Your task to perform on an android device: allow notifications from all sites in the chrome app Image 0: 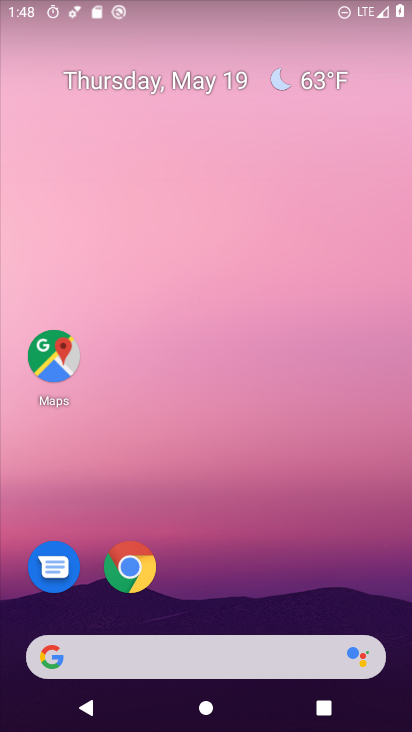
Step 0: press home button
Your task to perform on an android device: allow notifications from all sites in the chrome app Image 1: 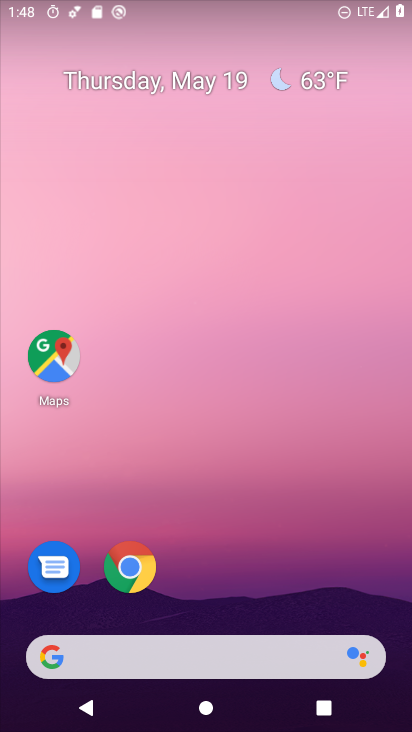
Step 1: click (125, 578)
Your task to perform on an android device: allow notifications from all sites in the chrome app Image 2: 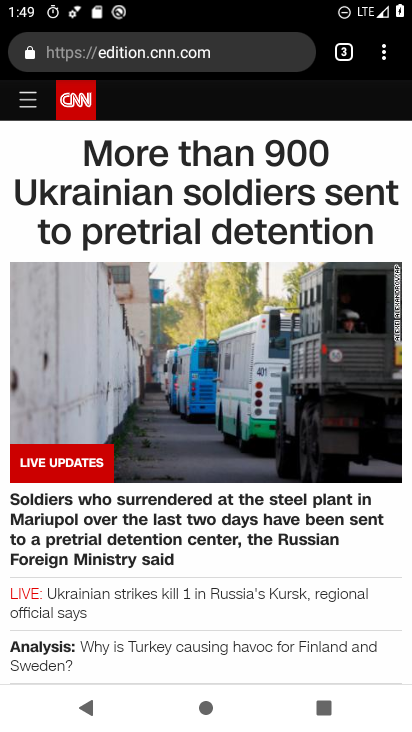
Step 2: drag from (385, 56) to (252, 571)
Your task to perform on an android device: allow notifications from all sites in the chrome app Image 3: 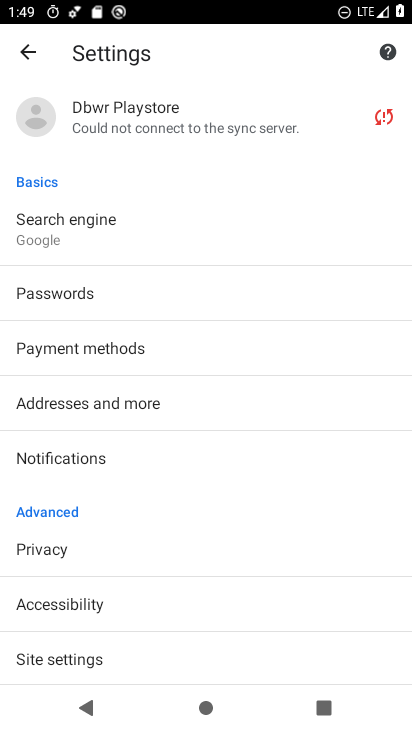
Step 3: drag from (149, 600) to (230, 389)
Your task to perform on an android device: allow notifications from all sites in the chrome app Image 4: 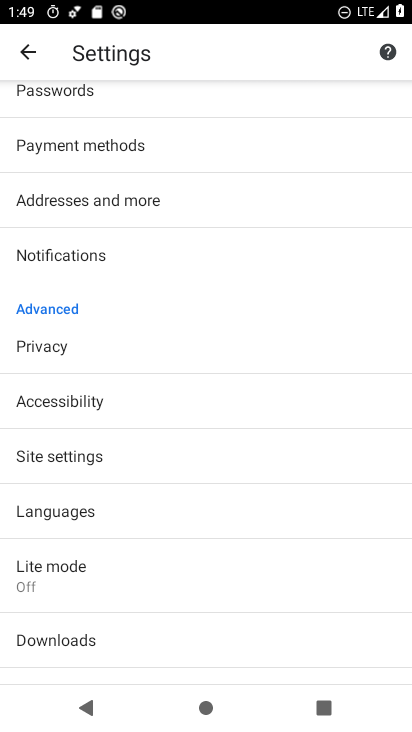
Step 4: click (55, 455)
Your task to perform on an android device: allow notifications from all sites in the chrome app Image 5: 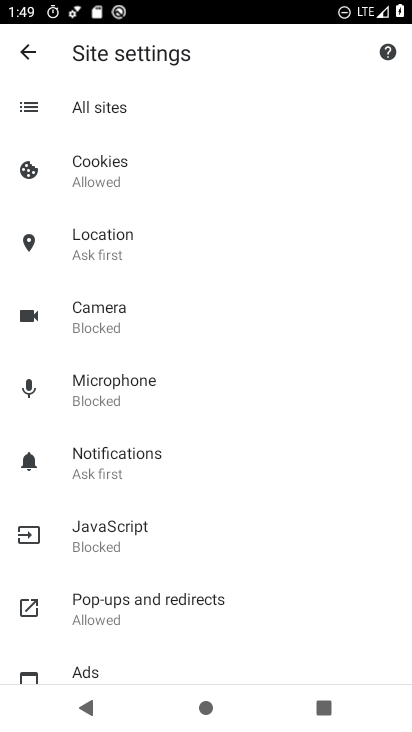
Step 5: click (91, 460)
Your task to perform on an android device: allow notifications from all sites in the chrome app Image 6: 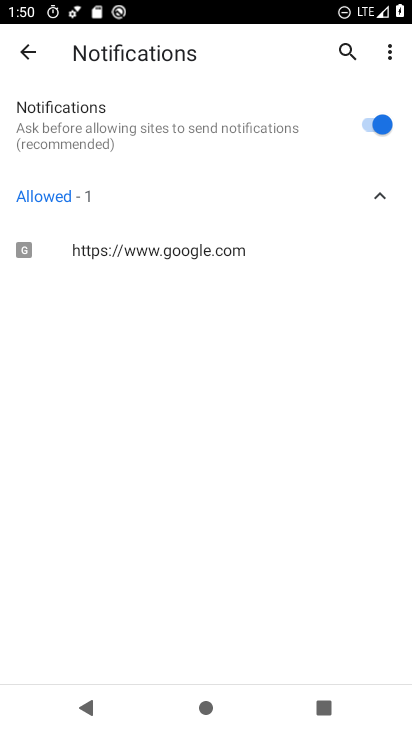
Step 6: task complete